Your task to perform on an android device: Do I have any events today? Image 0: 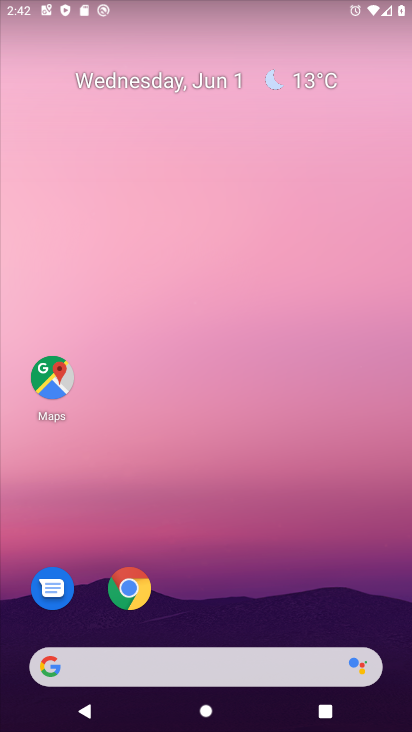
Step 0: drag from (220, 628) to (277, 92)
Your task to perform on an android device: Do I have any events today? Image 1: 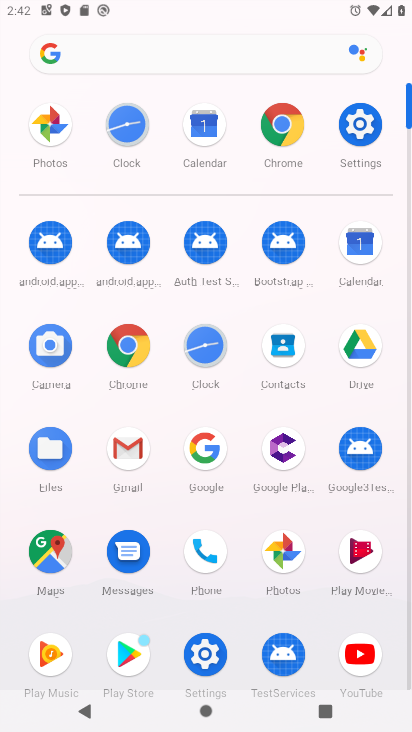
Step 1: click (356, 252)
Your task to perform on an android device: Do I have any events today? Image 2: 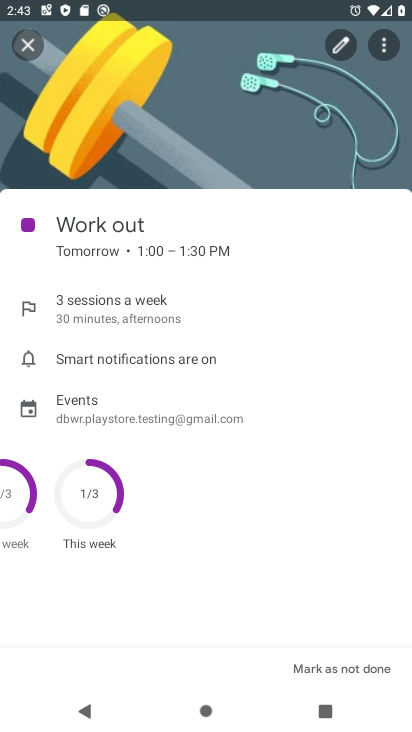
Step 2: click (22, 40)
Your task to perform on an android device: Do I have any events today? Image 3: 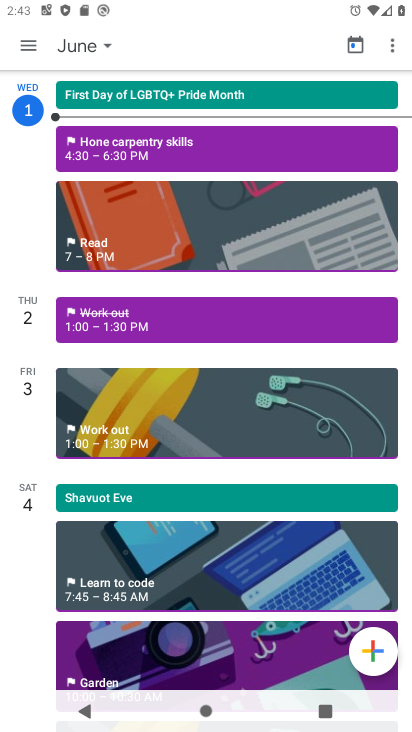
Step 3: click (180, 97)
Your task to perform on an android device: Do I have any events today? Image 4: 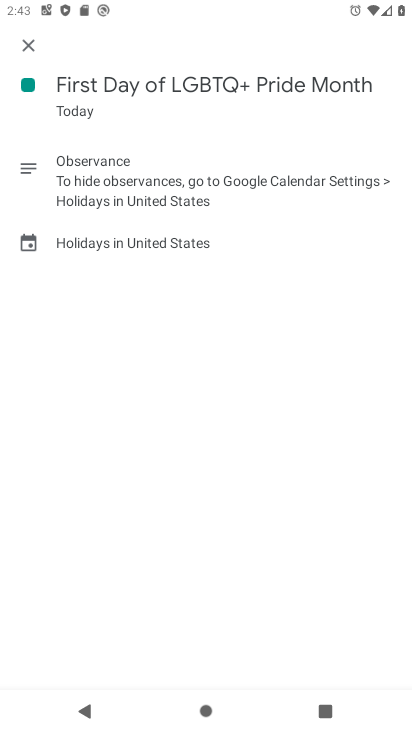
Step 4: task complete